Your task to perform on an android device: Clear all items from cart on bestbuy. Add bose soundlink mini to the cart on bestbuy, then select checkout. Image 0: 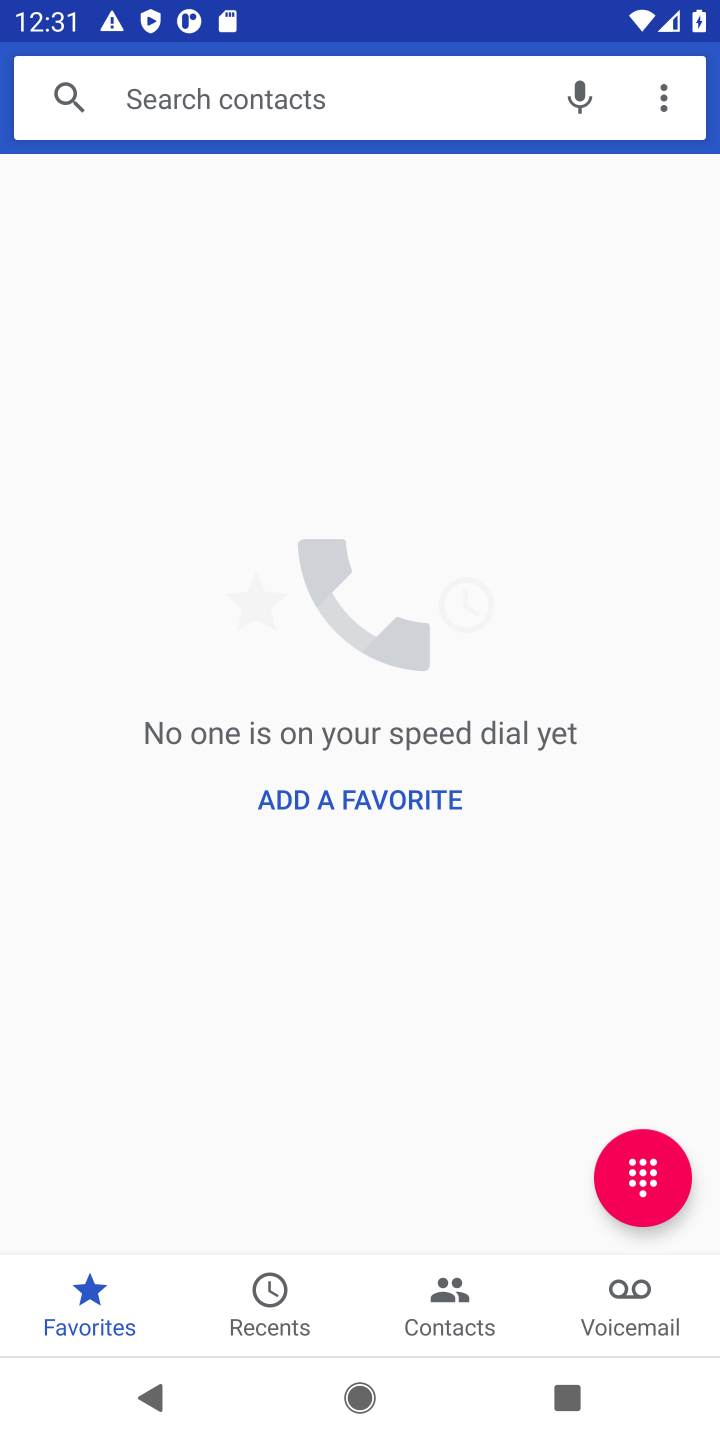
Step 0: press home button
Your task to perform on an android device: Clear all items from cart on bestbuy. Add bose soundlink mini to the cart on bestbuy, then select checkout. Image 1: 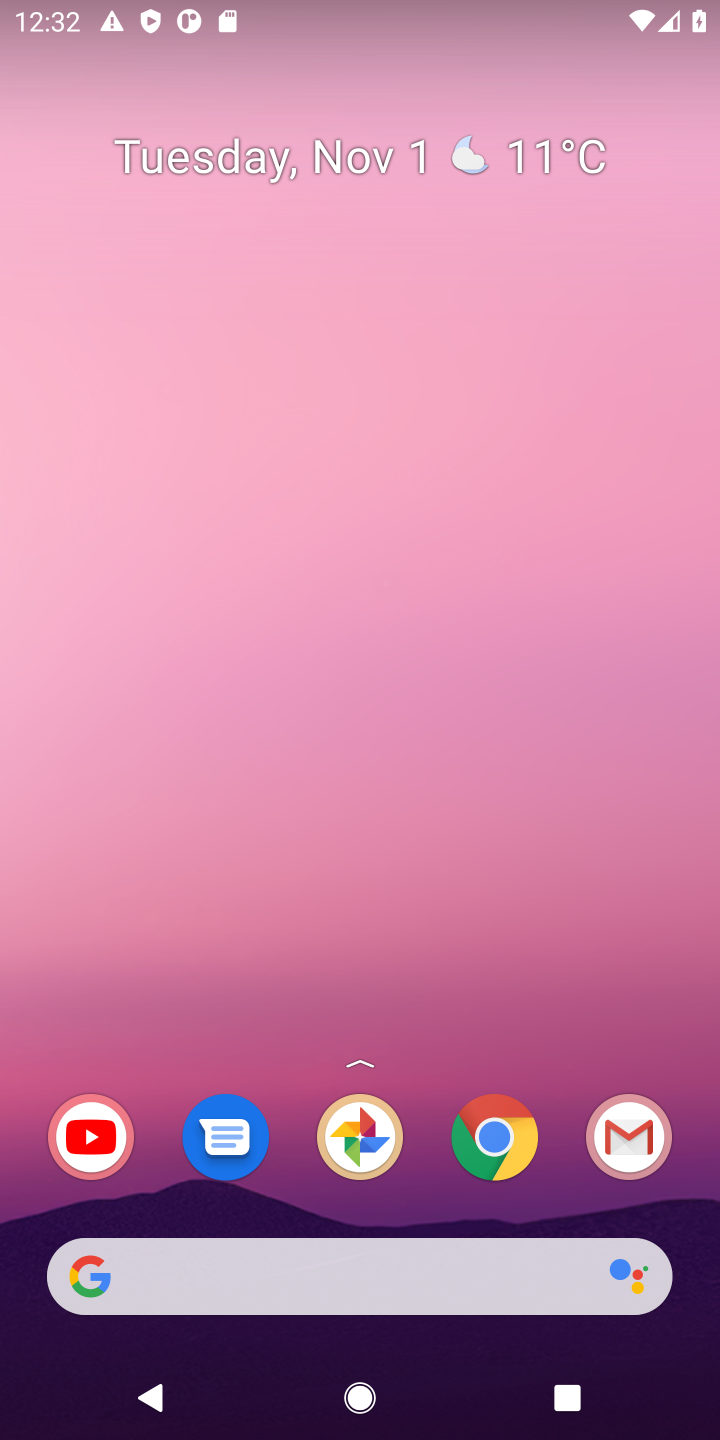
Step 1: click (483, 1134)
Your task to perform on an android device: Clear all items from cart on bestbuy. Add bose soundlink mini to the cart on bestbuy, then select checkout. Image 2: 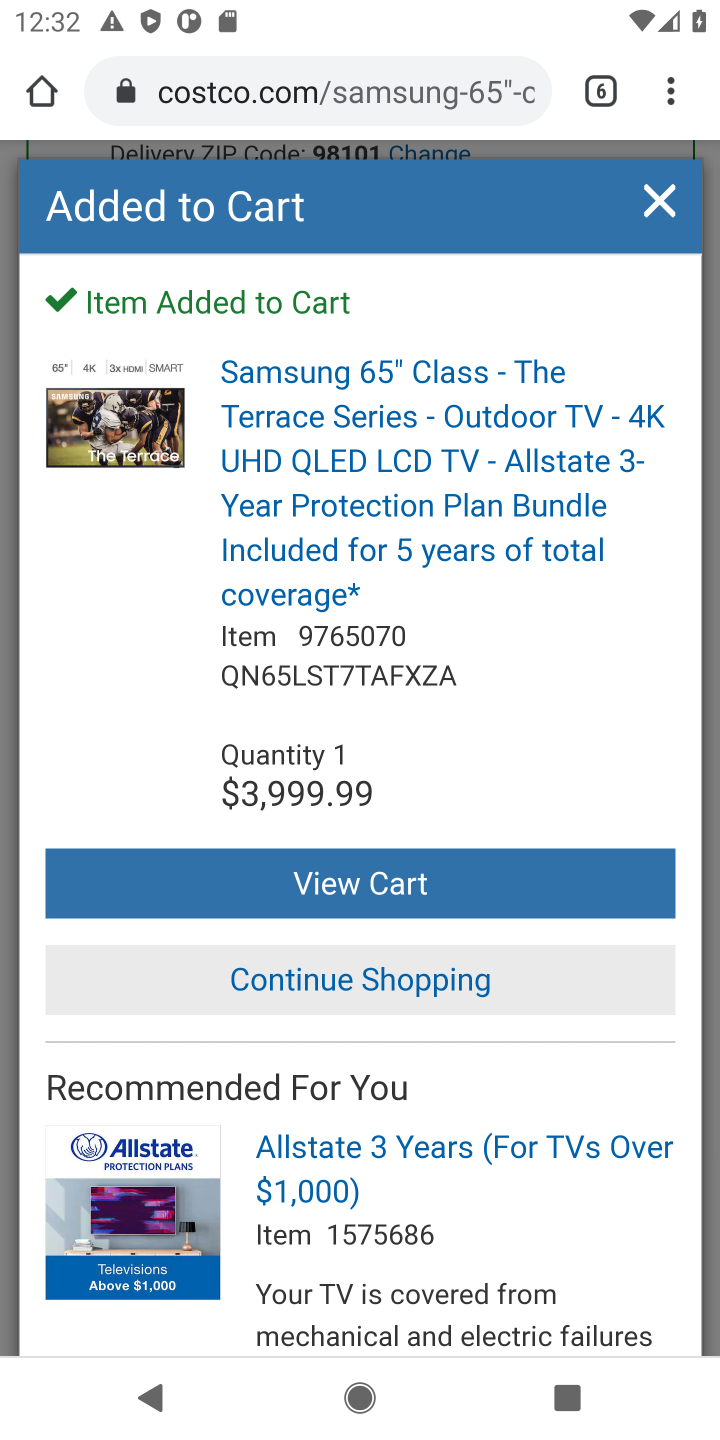
Step 2: click (599, 95)
Your task to perform on an android device: Clear all items from cart on bestbuy. Add bose soundlink mini to the cart on bestbuy, then select checkout. Image 3: 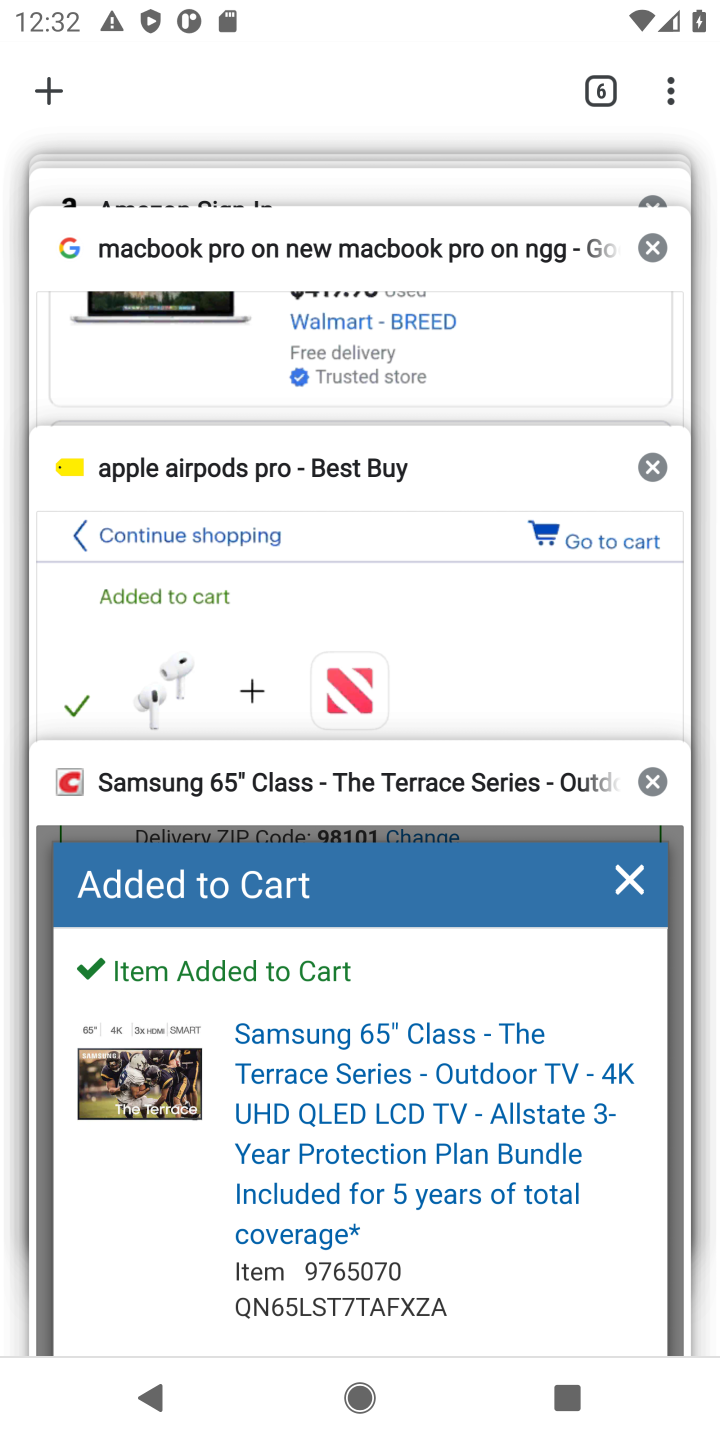
Step 3: click (416, 562)
Your task to perform on an android device: Clear all items from cart on bestbuy. Add bose soundlink mini to the cart on bestbuy, then select checkout. Image 4: 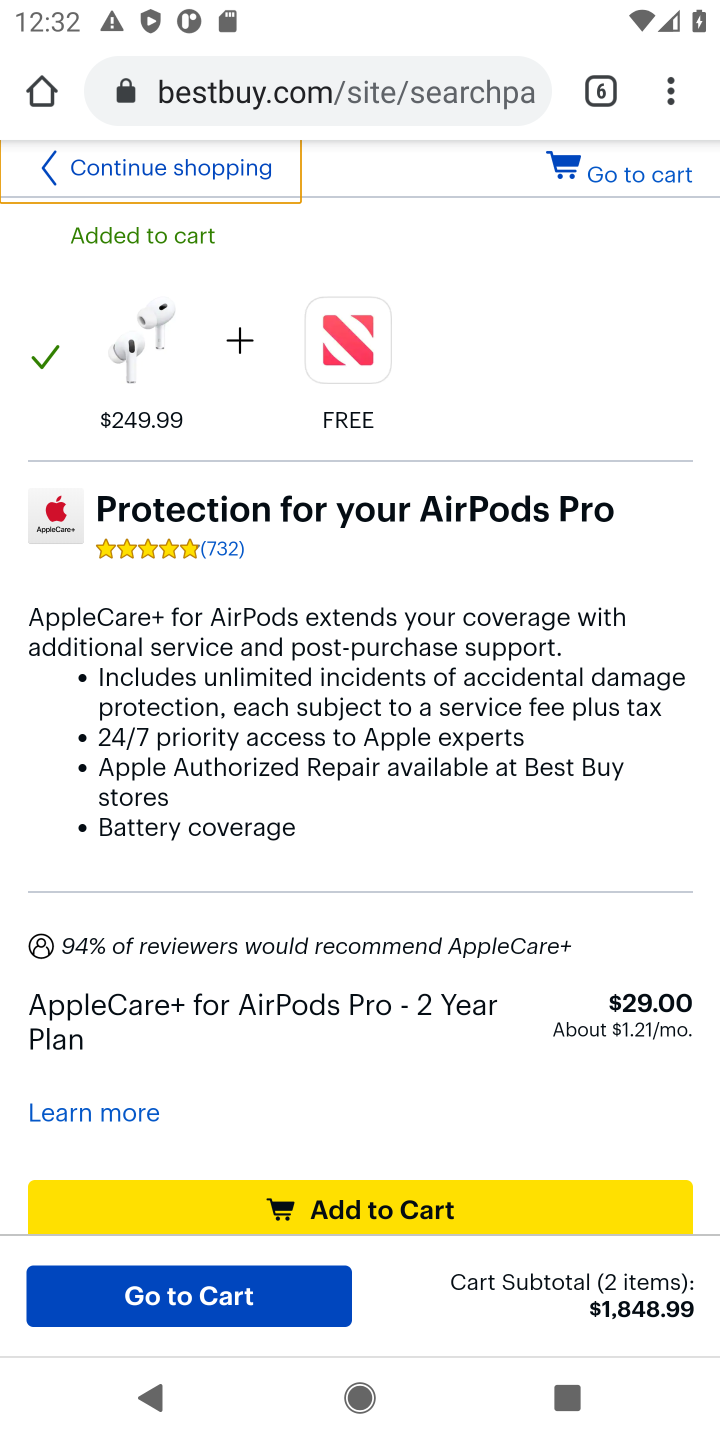
Step 4: click (206, 162)
Your task to perform on an android device: Clear all items from cart on bestbuy. Add bose soundlink mini to the cart on bestbuy, then select checkout. Image 5: 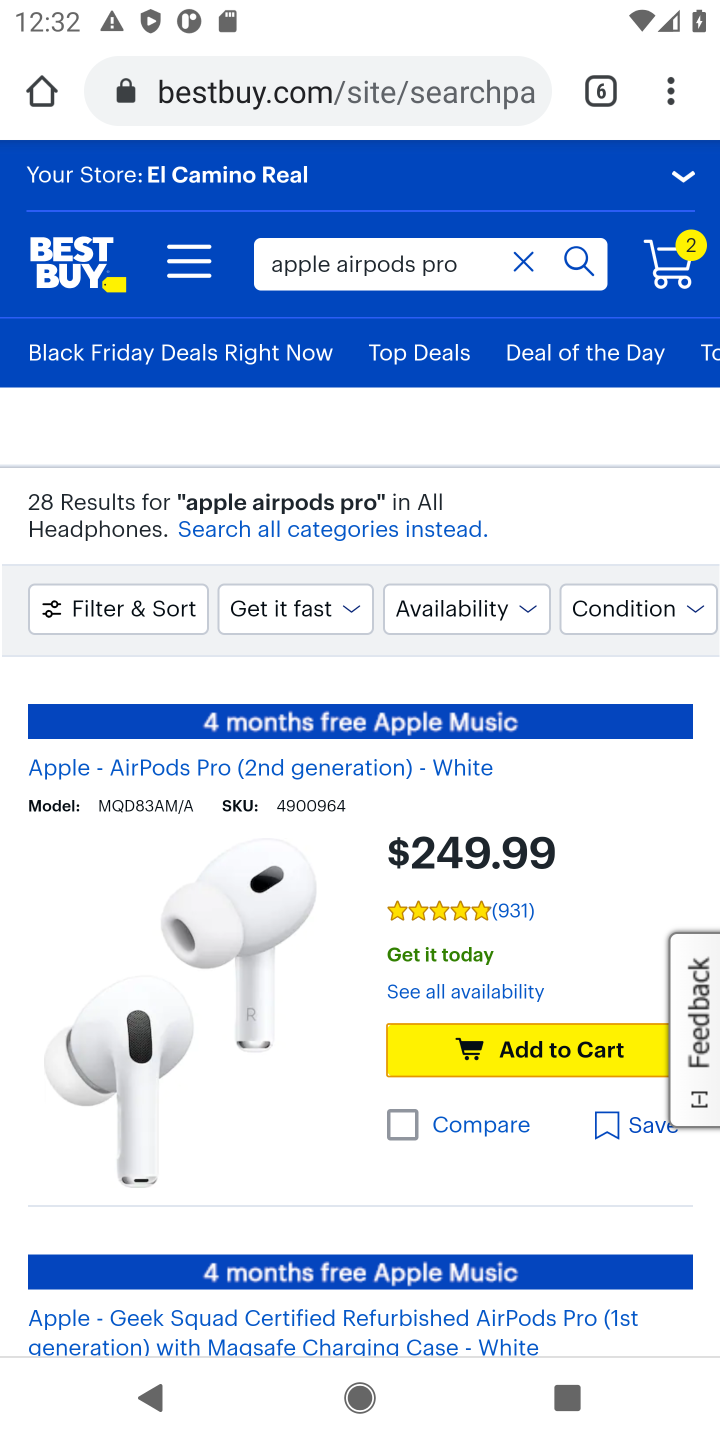
Step 5: click (684, 256)
Your task to perform on an android device: Clear all items from cart on bestbuy. Add bose soundlink mini to the cart on bestbuy, then select checkout. Image 6: 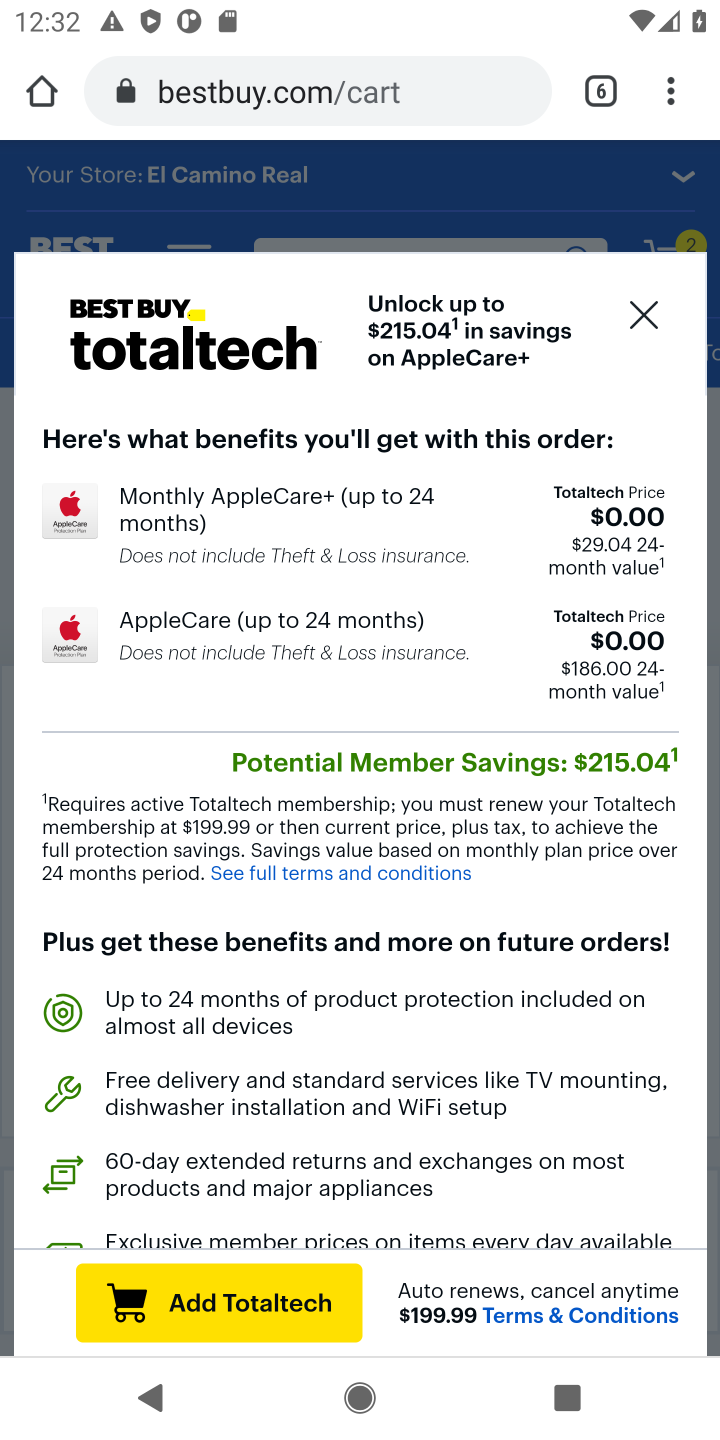
Step 6: click (641, 316)
Your task to perform on an android device: Clear all items from cart on bestbuy. Add bose soundlink mini to the cart on bestbuy, then select checkout. Image 7: 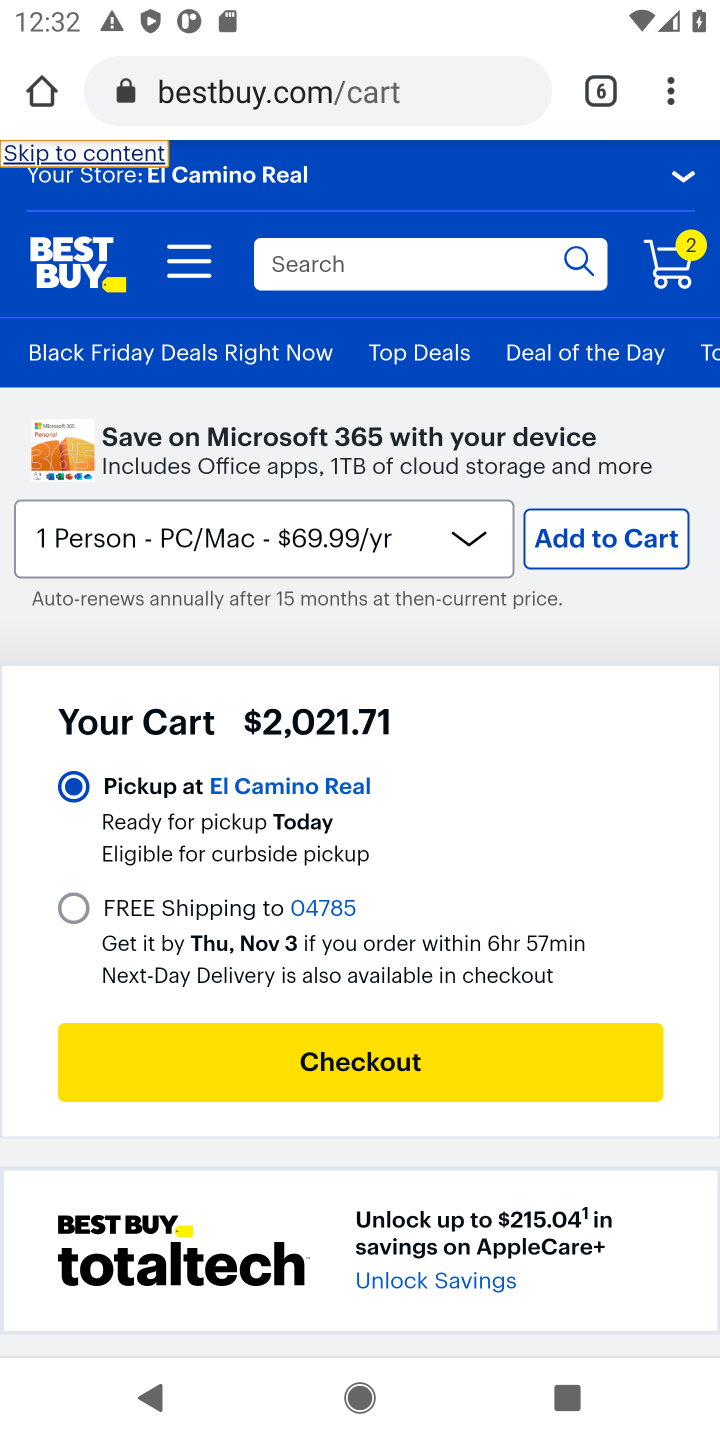
Step 7: click (690, 261)
Your task to perform on an android device: Clear all items from cart on bestbuy. Add bose soundlink mini to the cart on bestbuy, then select checkout. Image 8: 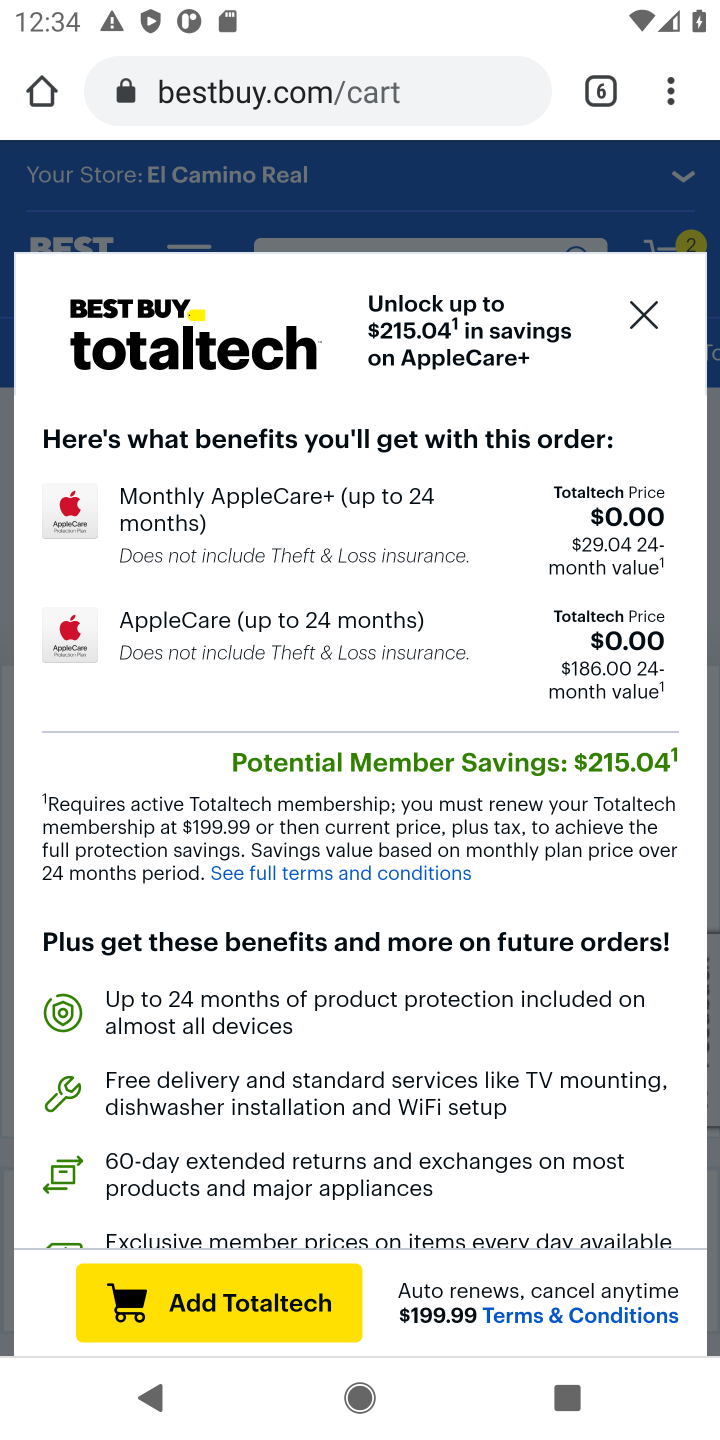
Step 8: click (632, 306)
Your task to perform on an android device: Clear all items from cart on bestbuy. Add bose soundlink mini to the cart on bestbuy, then select checkout. Image 9: 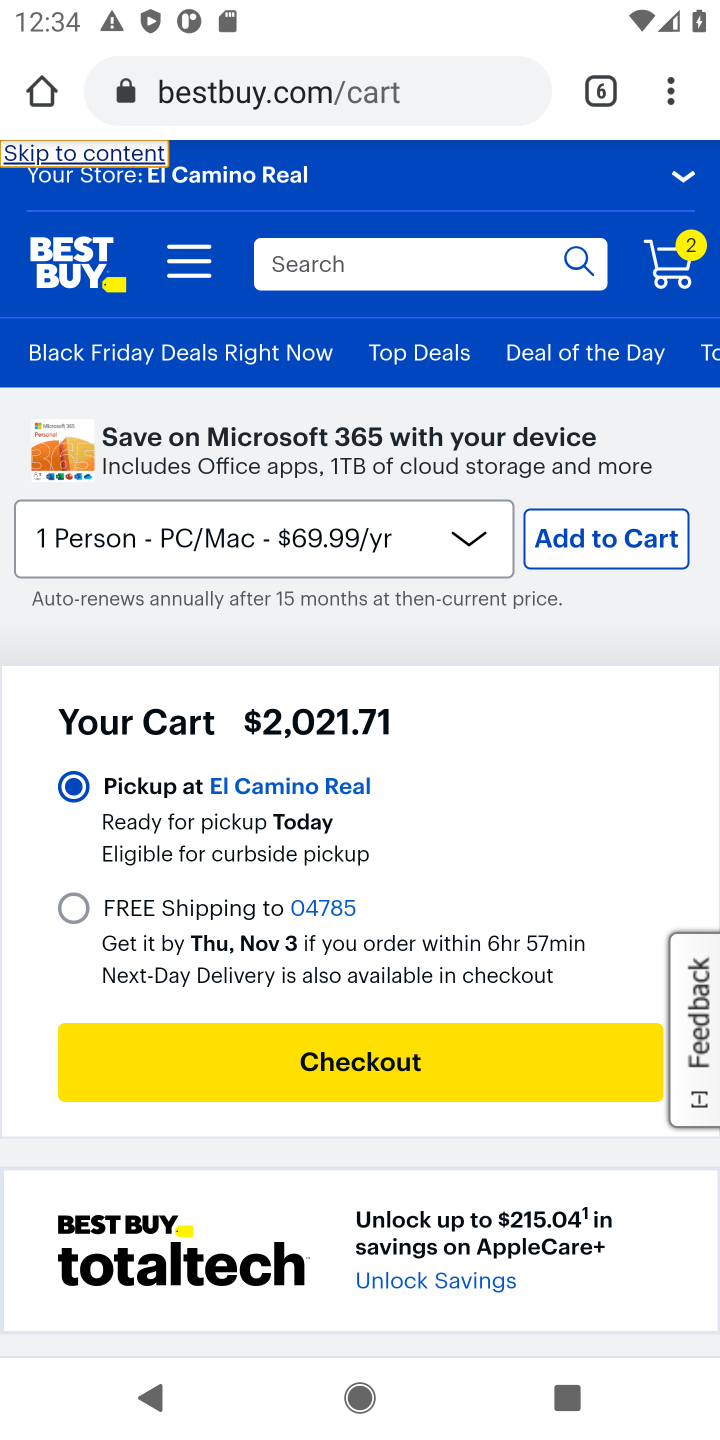
Step 9: drag from (253, 963) to (315, 485)
Your task to perform on an android device: Clear all items from cart on bestbuy. Add bose soundlink mini to the cart on bestbuy, then select checkout. Image 10: 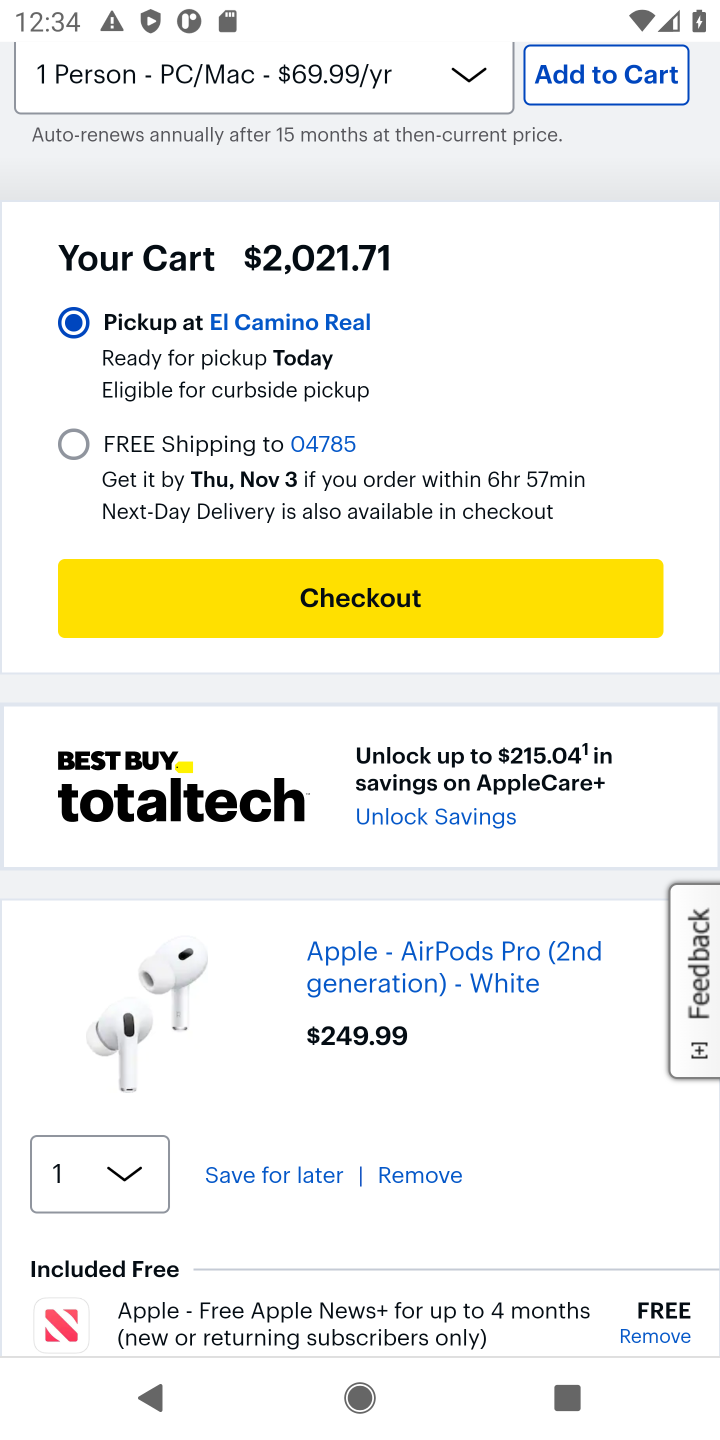
Step 10: click (405, 1162)
Your task to perform on an android device: Clear all items from cart on bestbuy. Add bose soundlink mini to the cart on bestbuy, then select checkout. Image 11: 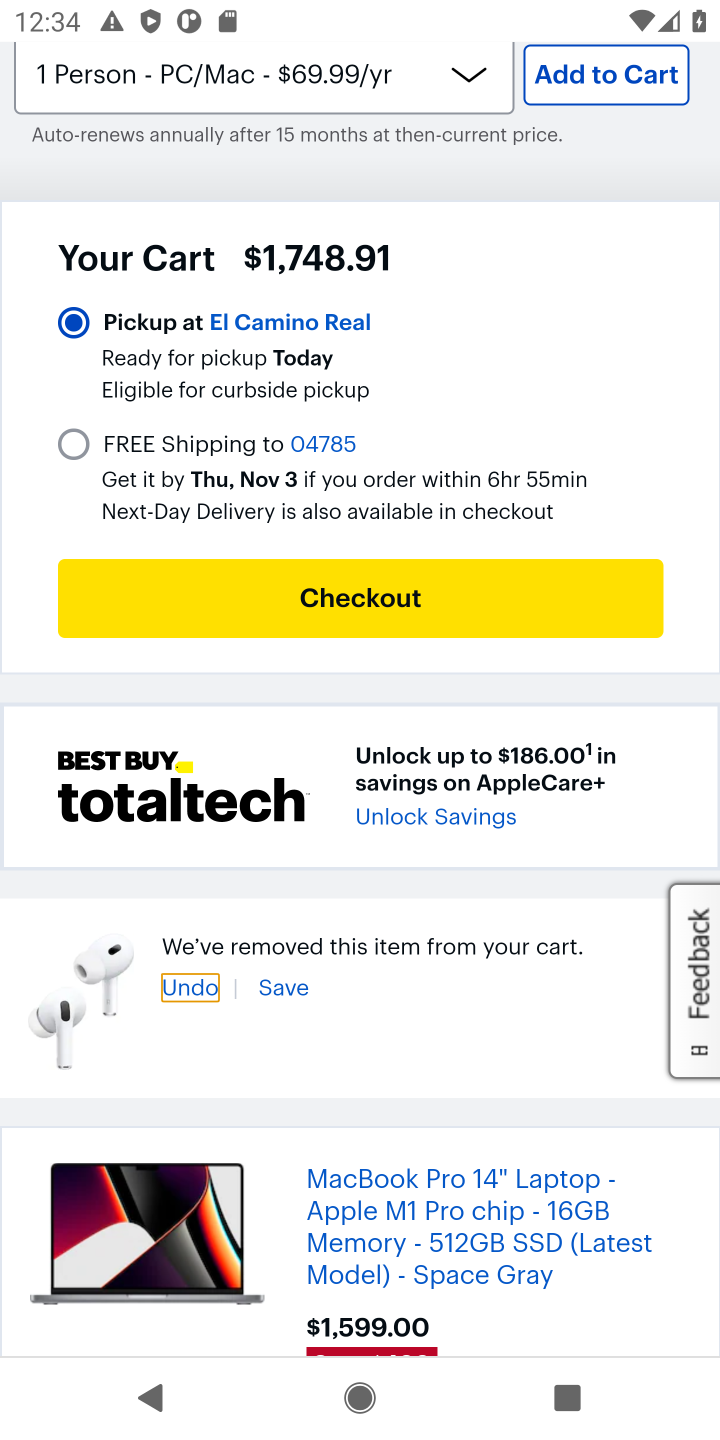
Step 11: drag from (514, 911) to (481, 247)
Your task to perform on an android device: Clear all items from cart on bestbuy. Add bose soundlink mini to the cart on bestbuy, then select checkout. Image 12: 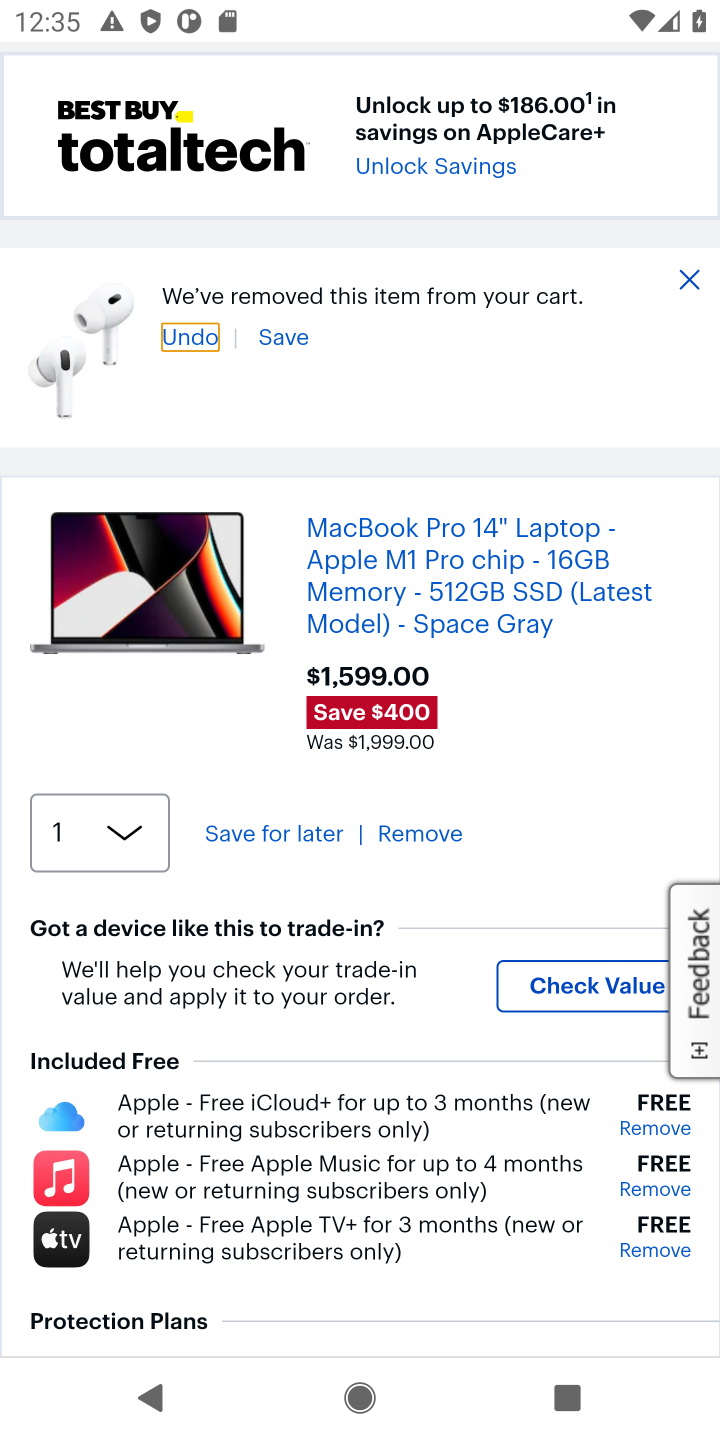
Step 12: click (415, 828)
Your task to perform on an android device: Clear all items from cart on bestbuy. Add bose soundlink mini to the cart on bestbuy, then select checkout. Image 13: 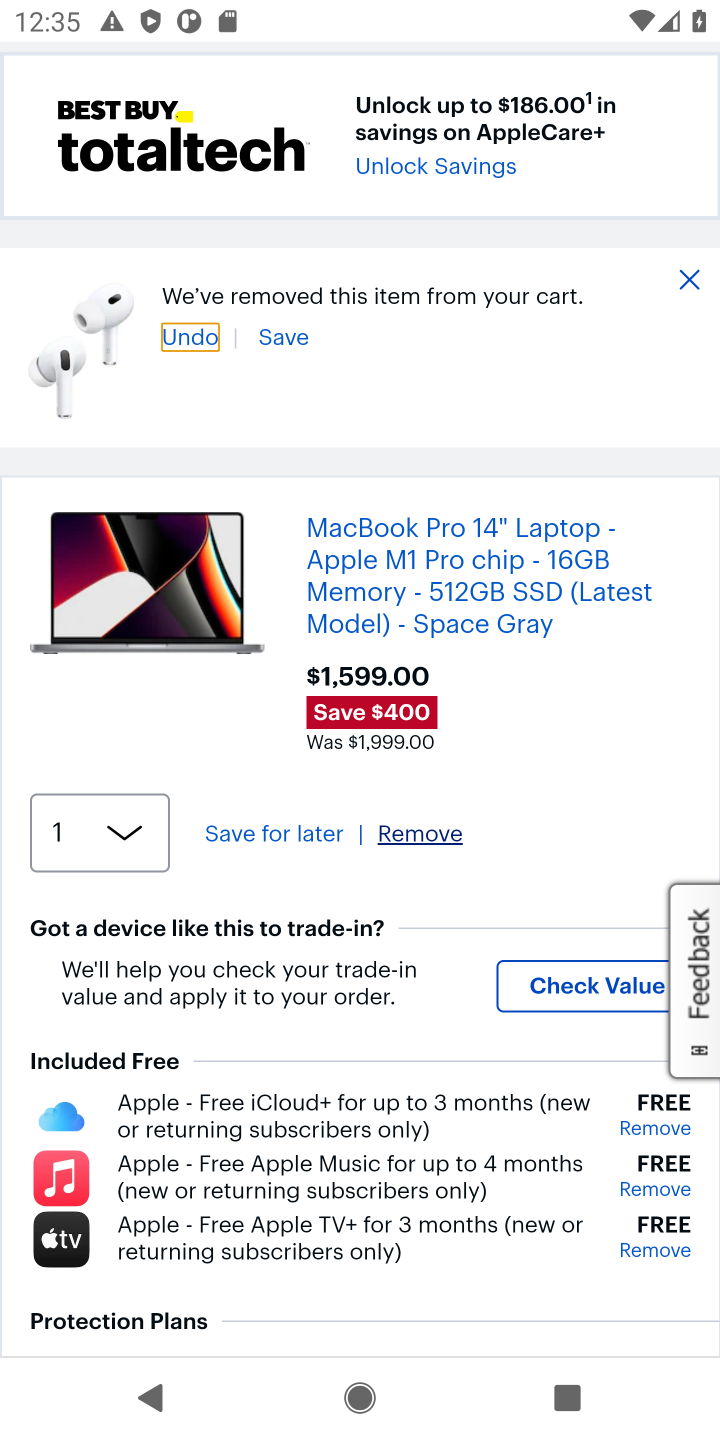
Step 13: click (423, 834)
Your task to perform on an android device: Clear all items from cart on bestbuy. Add bose soundlink mini to the cart on bestbuy, then select checkout. Image 14: 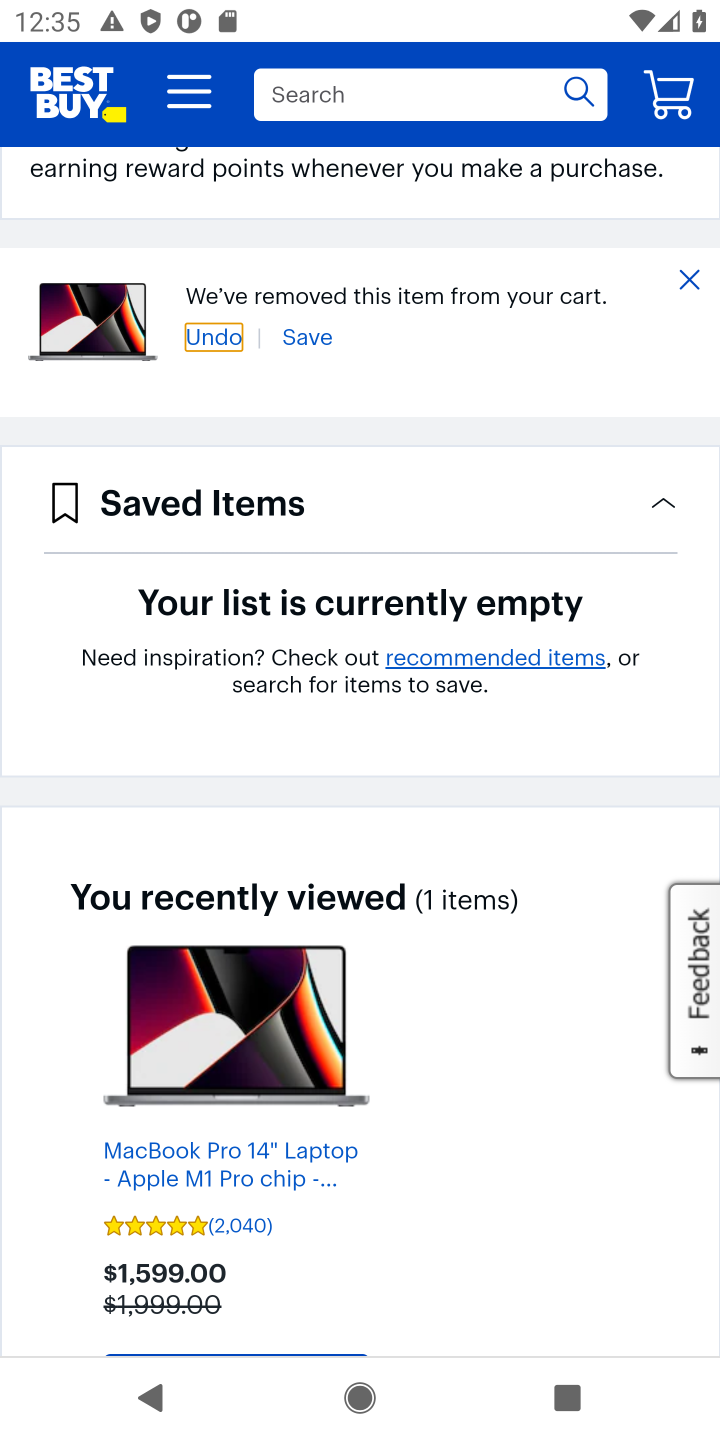
Step 14: click (382, 107)
Your task to perform on an android device: Clear all items from cart on bestbuy. Add bose soundlink mini to the cart on bestbuy, then select checkout. Image 15: 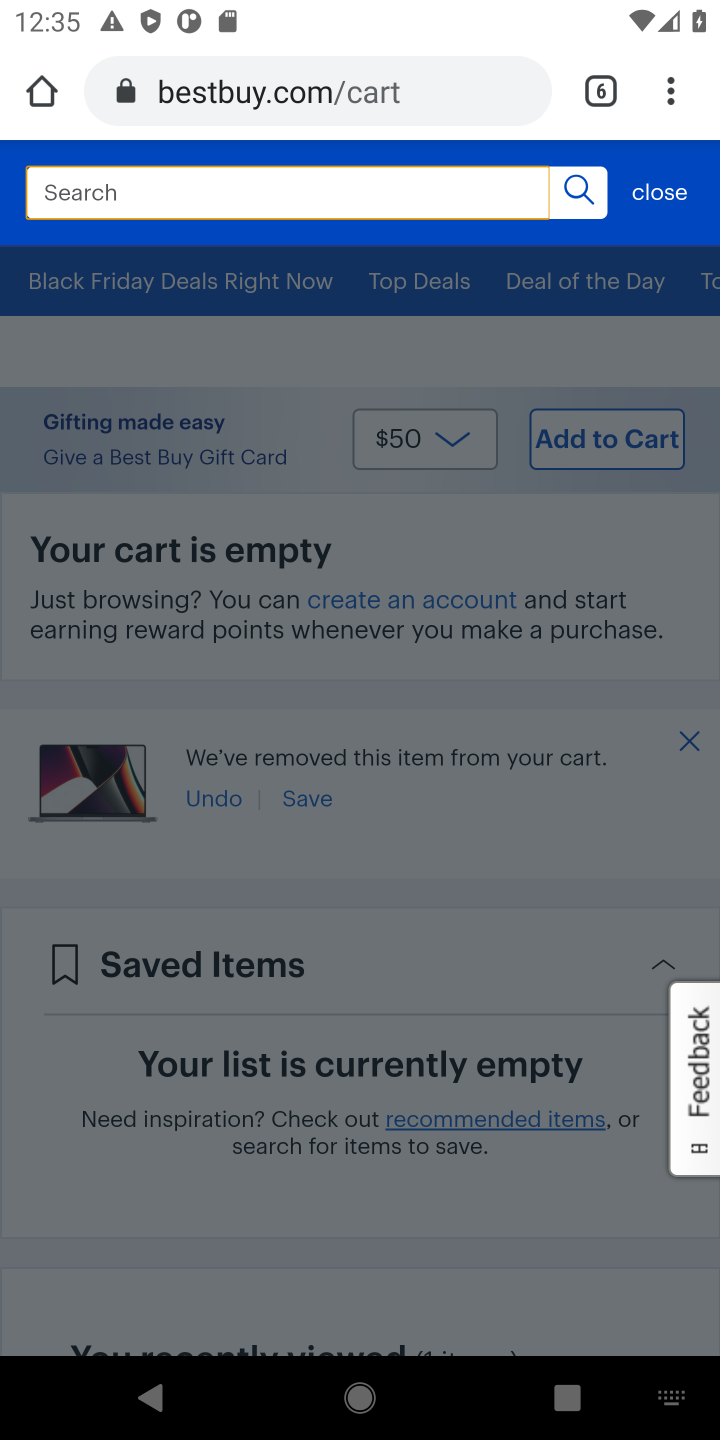
Step 15: type "soundlink mini"
Your task to perform on an android device: Clear all items from cart on bestbuy. Add bose soundlink mini to the cart on bestbuy, then select checkout. Image 16: 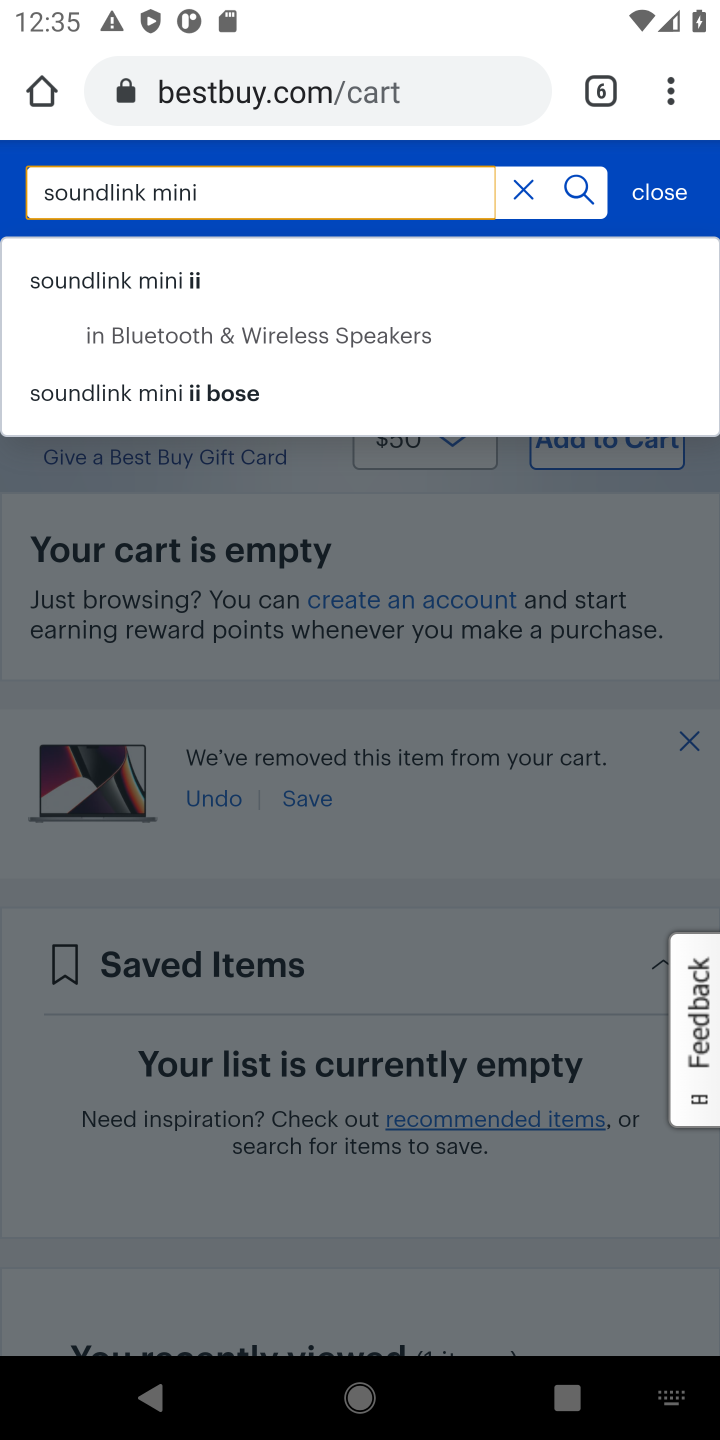
Step 16: click (150, 278)
Your task to perform on an android device: Clear all items from cart on bestbuy. Add bose soundlink mini to the cart on bestbuy, then select checkout. Image 17: 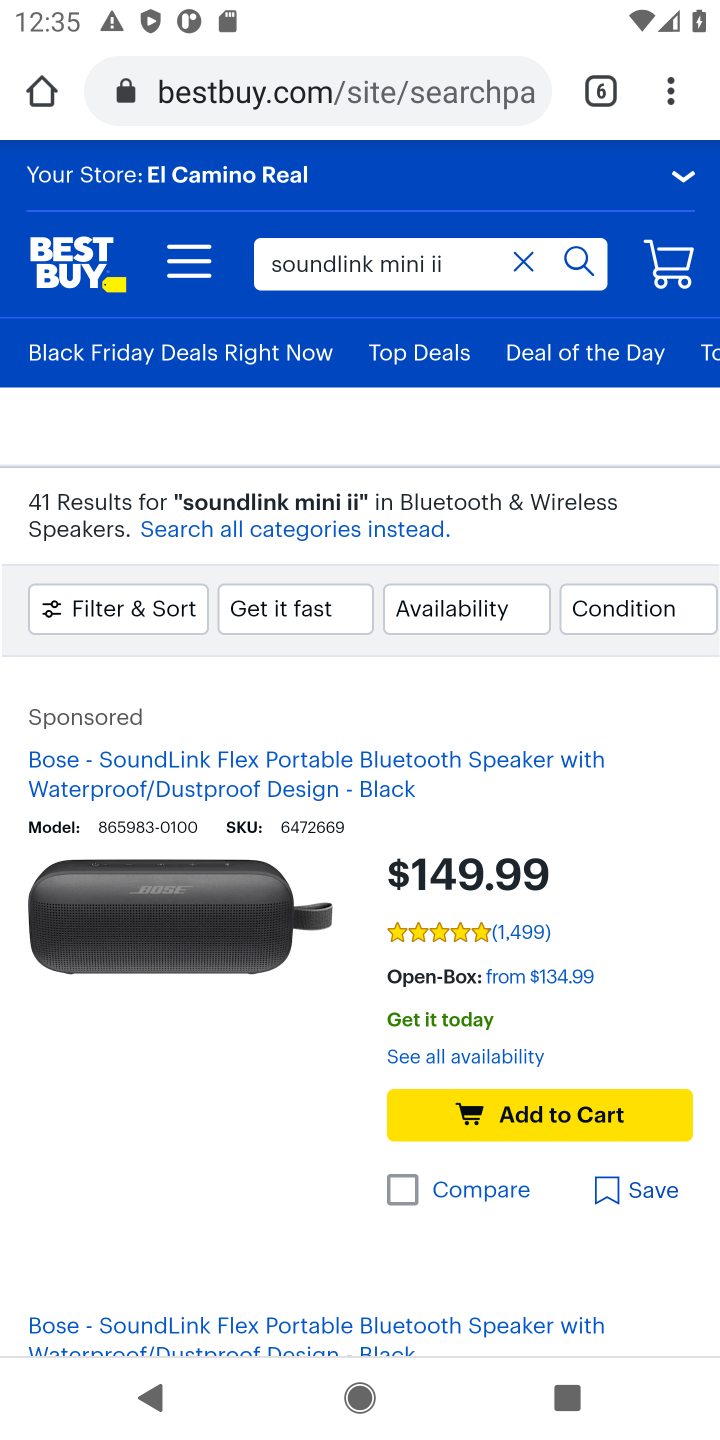
Step 17: click (531, 1111)
Your task to perform on an android device: Clear all items from cart on bestbuy. Add bose soundlink mini to the cart on bestbuy, then select checkout. Image 18: 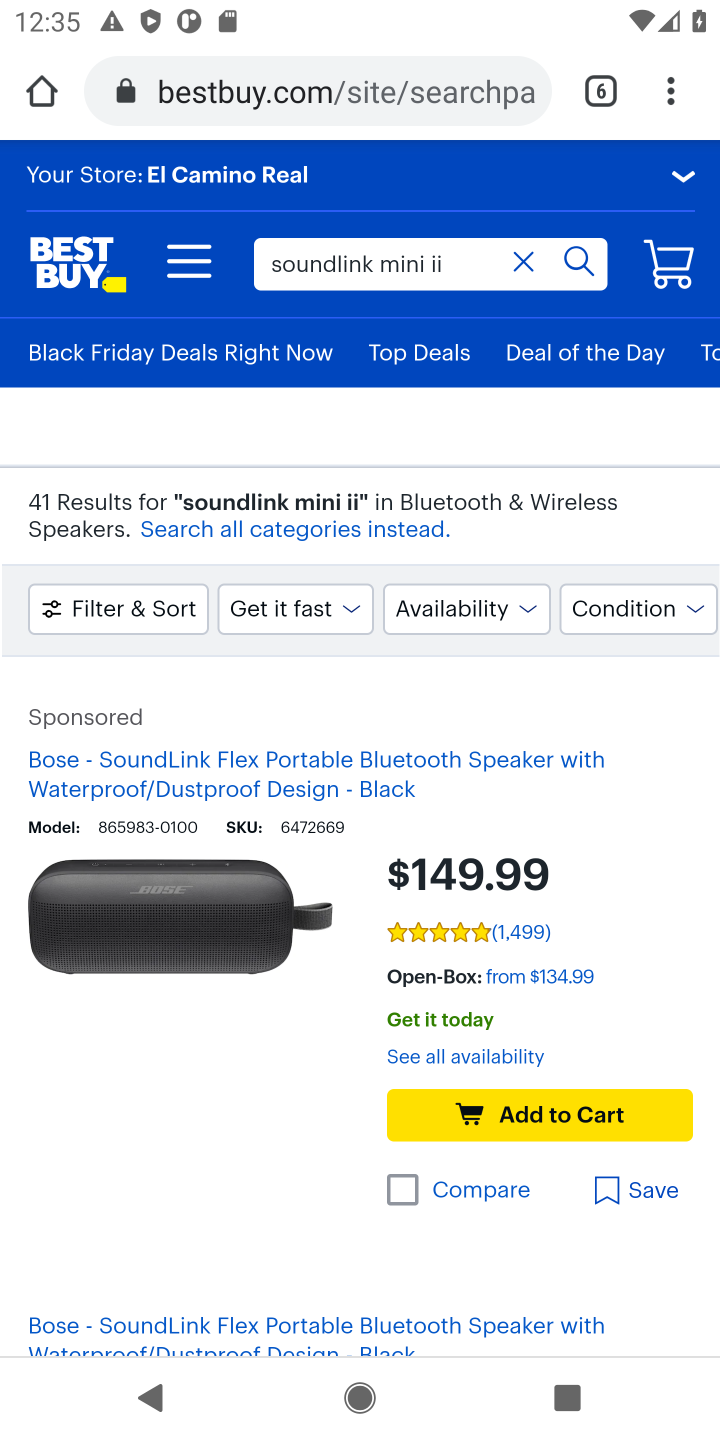
Step 18: click (502, 1115)
Your task to perform on an android device: Clear all items from cart on bestbuy. Add bose soundlink mini to the cart on bestbuy, then select checkout. Image 19: 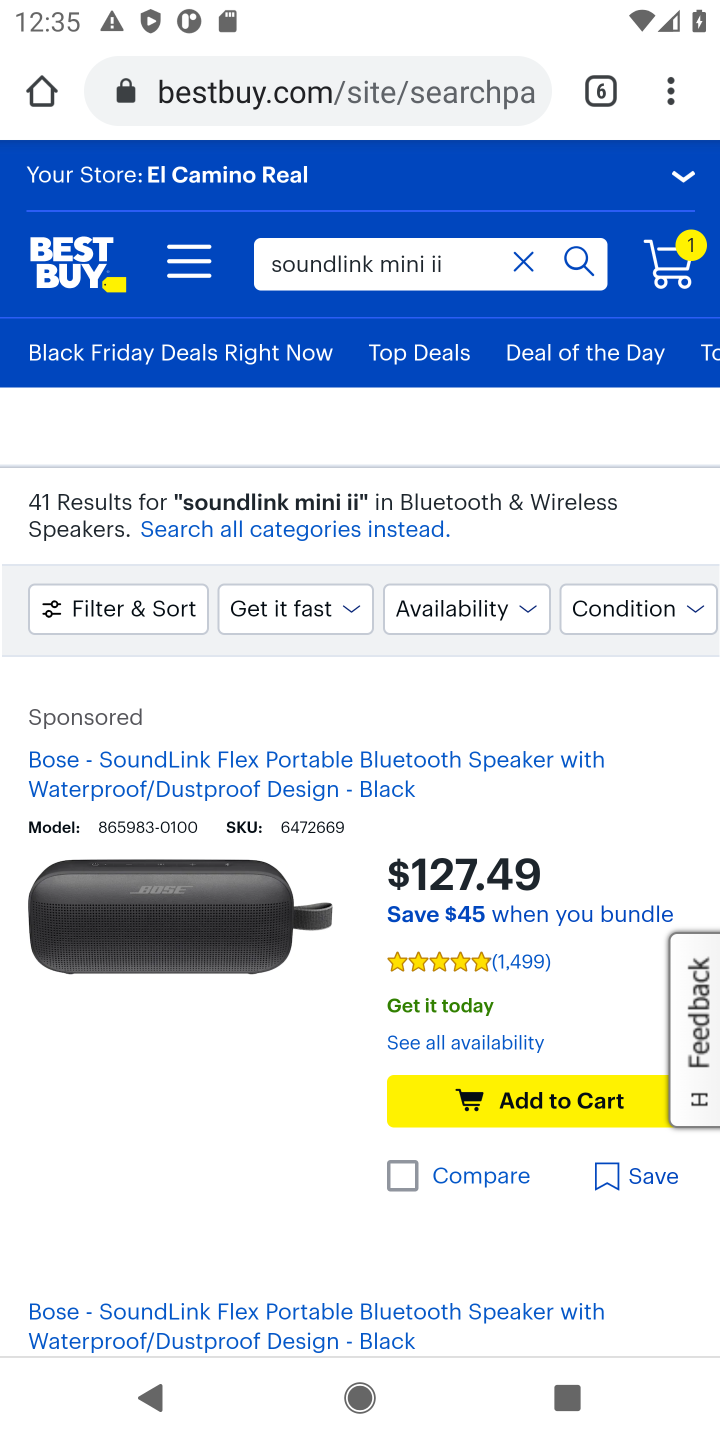
Step 19: click (664, 281)
Your task to perform on an android device: Clear all items from cart on bestbuy. Add bose soundlink mini to the cart on bestbuy, then select checkout. Image 20: 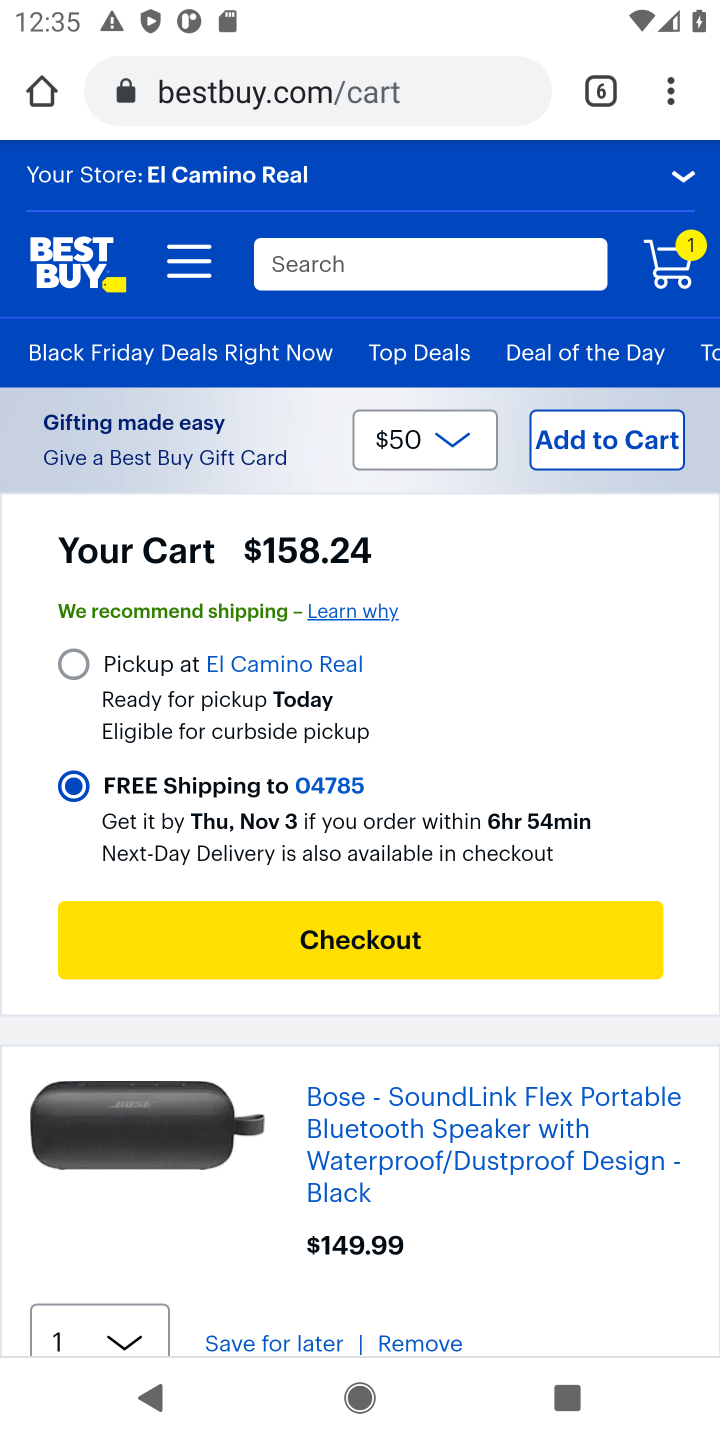
Step 20: click (346, 931)
Your task to perform on an android device: Clear all items from cart on bestbuy. Add bose soundlink mini to the cart on bestbuy, then select checkout. Image 21: 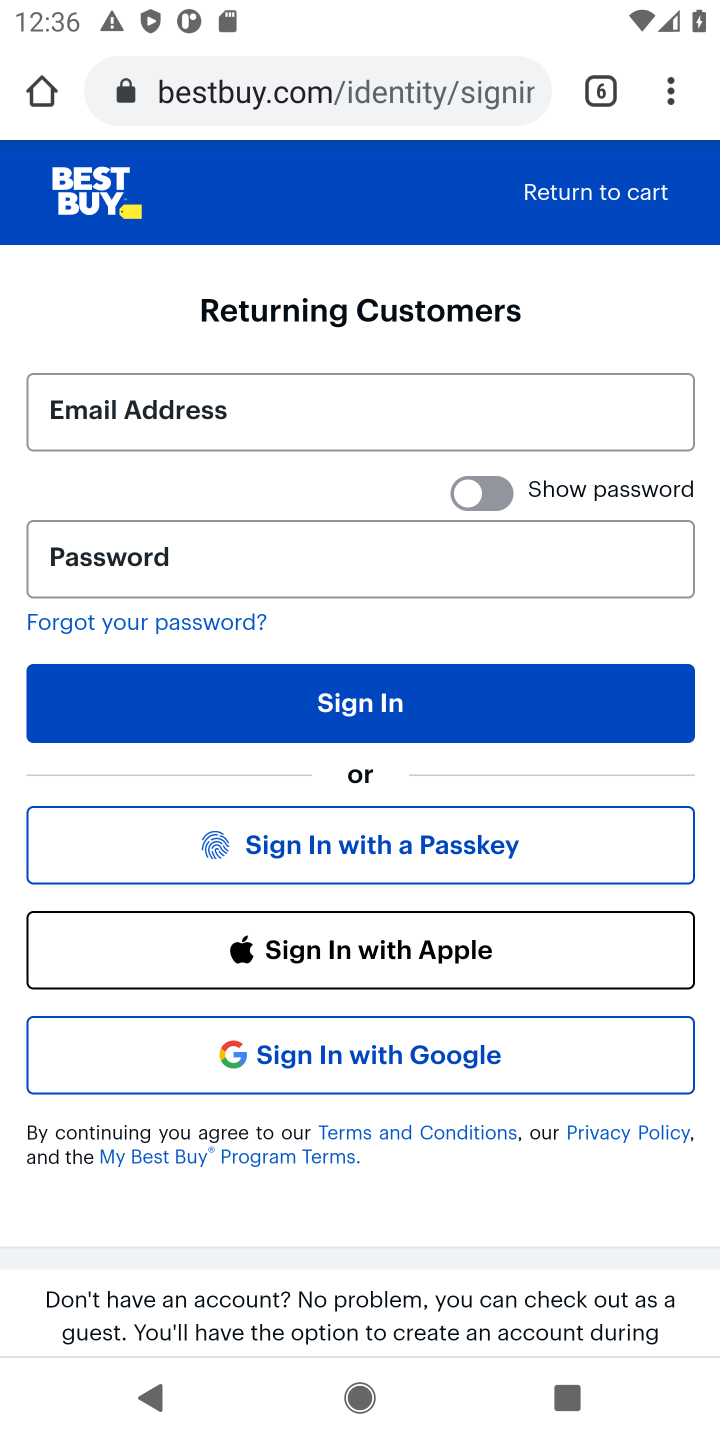
Step 21: task complete